Your task to perform on an android device: turn on priority inbox in the gmail app Image 0: 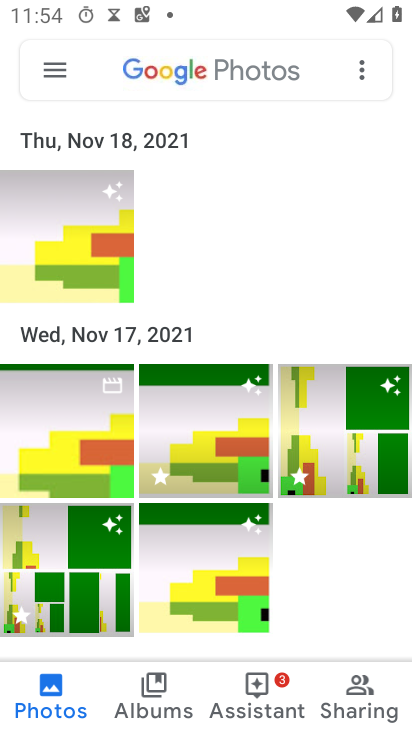
Step 0: press home button
Your task to perform on an android device: turn on priority inbox in the gmail app Image 1: 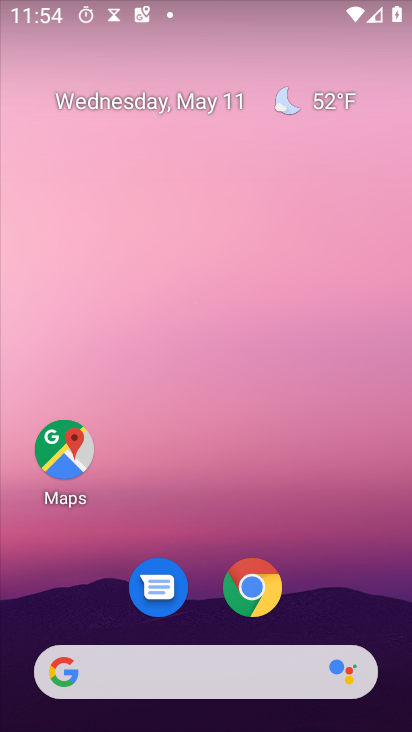
Step 1: drag from (251, 713) to (353, 308)
Your task to perform on an android device: turn on priority inbox in the gmail app Image 2: 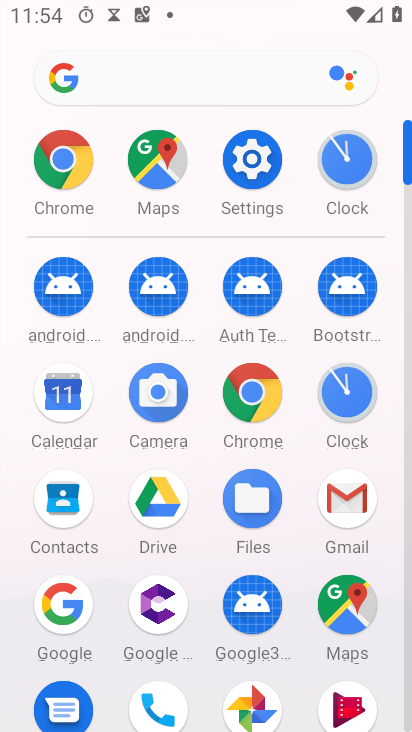
Step 2: click (350, 493)
Your task to perform on an android device: turn on priority inbox in the gmail app Image 3: 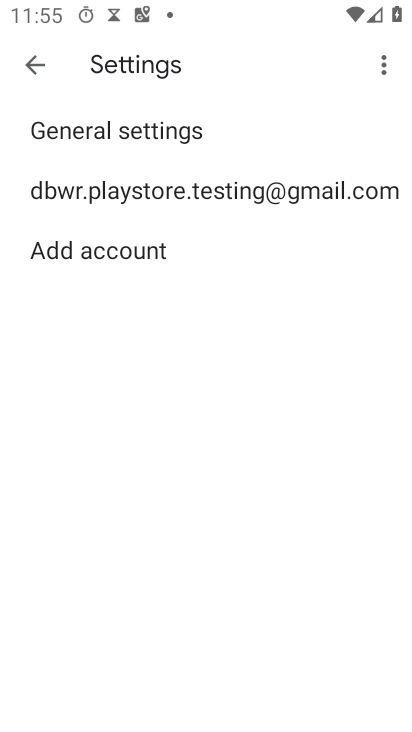
Step 3: click (225, 209)
Your task to perform on an android device: turn on priority inbox in the gmail app Image 4: 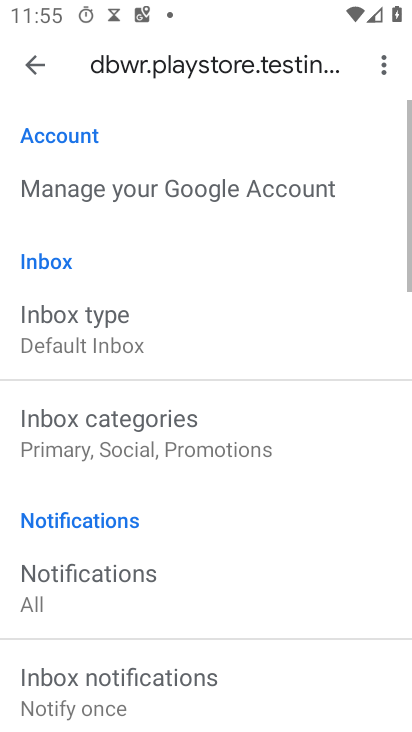
Step 4: click (99, 347)
Your task to perform on an android device: turn on priority inbox in the gmail app Image 5: 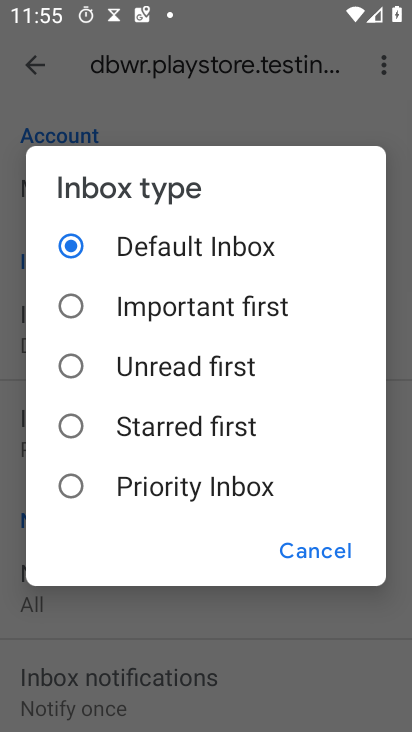
Step 5: click (185, 487)
Your task to perform on an android device: turn on priority inbox in the gmail app Image 6: 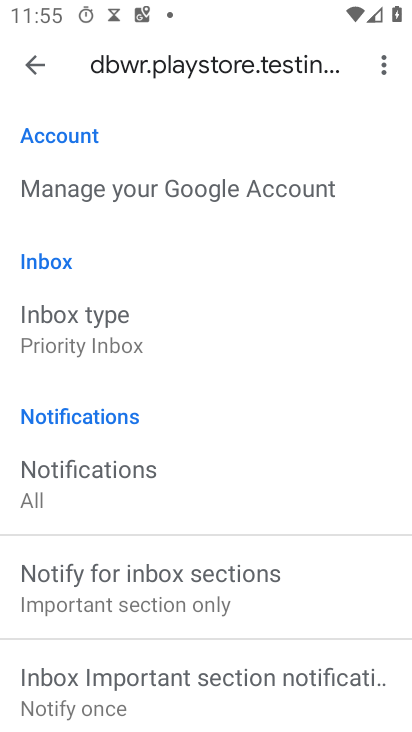
Step 6: task complete